Your task to perform on an android device: find which apps use the phone's location Image 0: 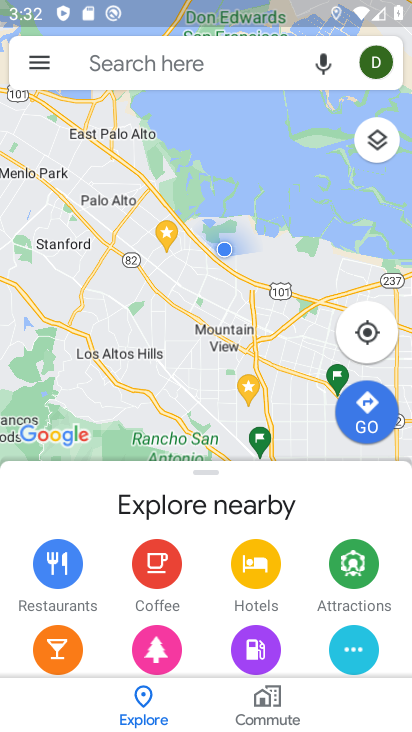
Step 0: drag from (216, 19) to (41, 588)
Your task to perform on an android device: find which apps use the phone's location Image 1: 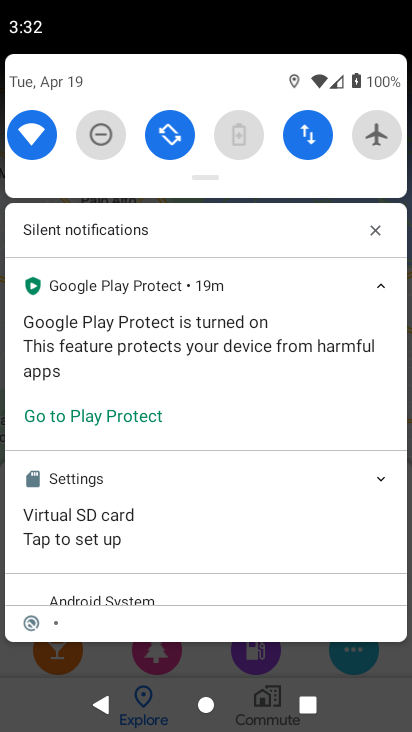
Step 1: drag from (237, 79) to (163, 560)
Your task to perform on an android device: find which apps use the phone's location Image 2: 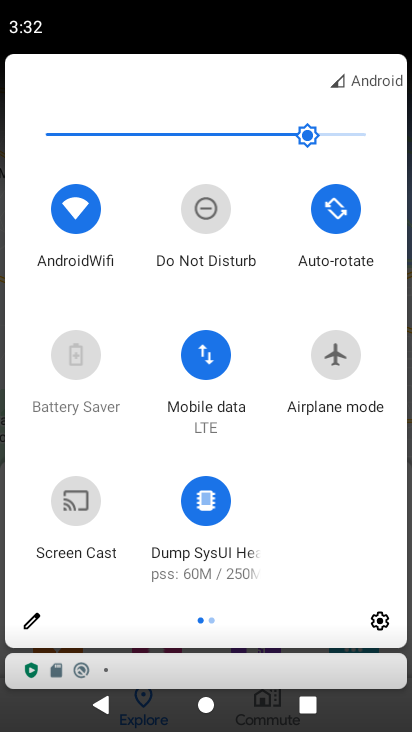
Step 2: click (389, 623)
Your task to perform on an android device: find which apps use the phone's location Image 3: 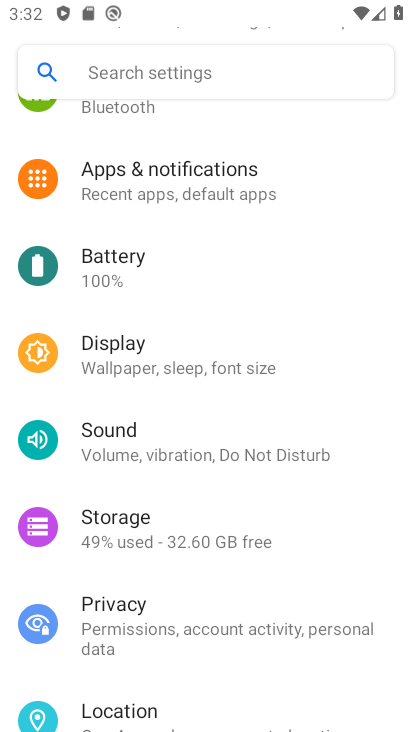
Step 3: click (106, 713)
Your task to perform on an android device: find which apps use the phone's location Image 4: 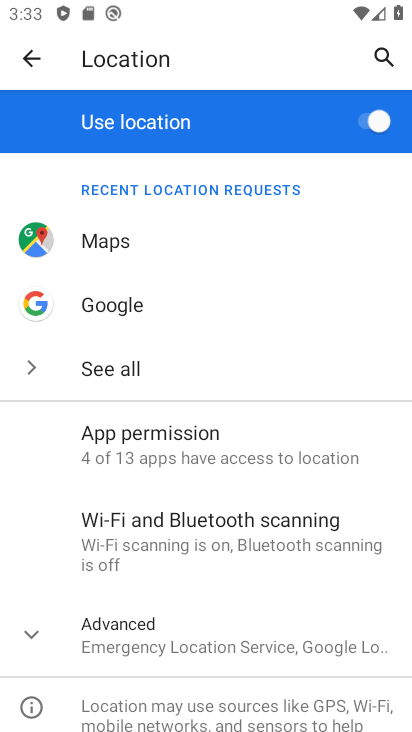
Step 4: drag from (173, 601) to (218, 258)
Your task to perform on an android device: find which apps use the phone's location Image 5: 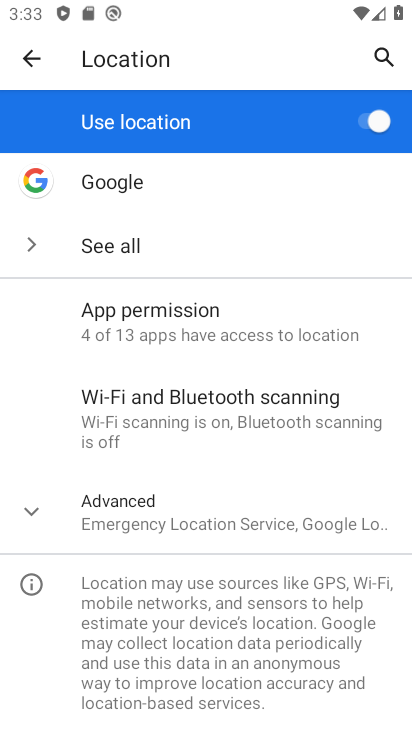
Step 5: click (178, 241)
Your task to perform on an android device: find which apps use the phone's location Image 6: 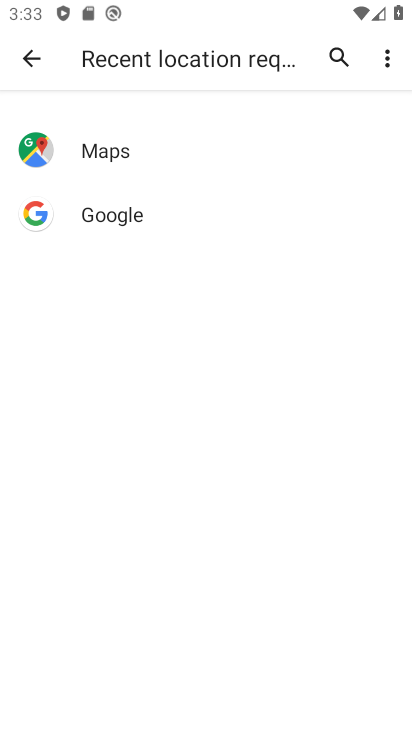
Step 6: task complete